Your task to perform on an android device: Open eBay Image 0: 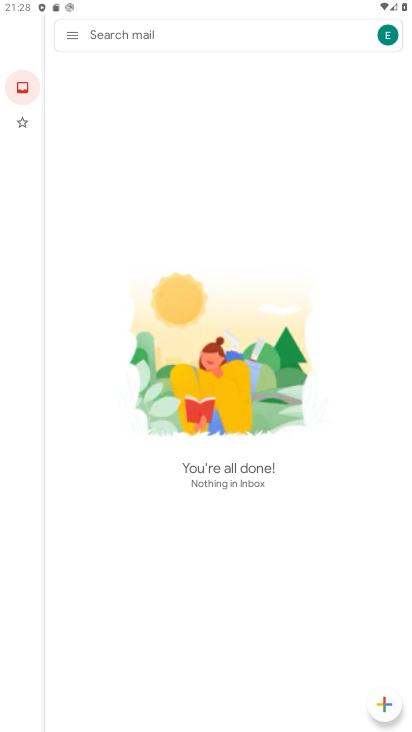
Step 0: press home button
Your task to perform on an android device: Open eBay Image 1: 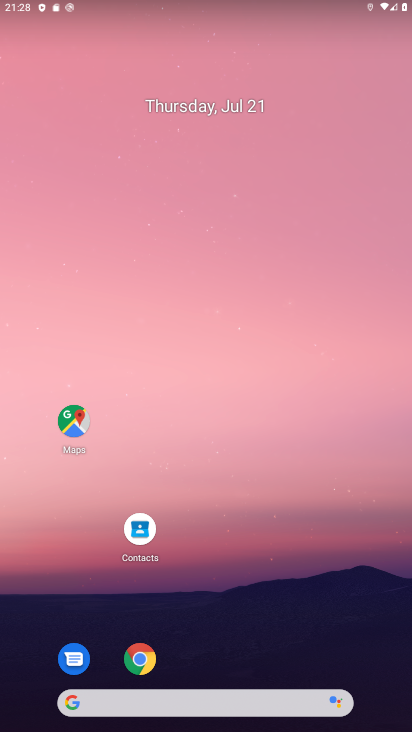
Step 1: drag from (155, 717) to (186, 114)
Your task to perform on an android device: Open eBay Image 2: 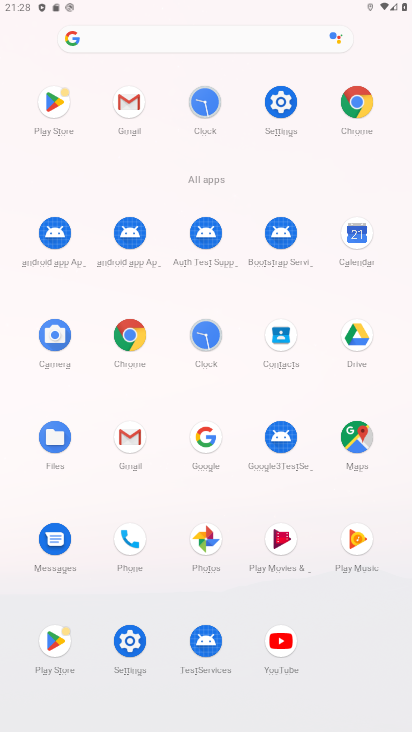
Step 2: click (138, 338)
Your task to perform on an android device: Open eBay Image 3: 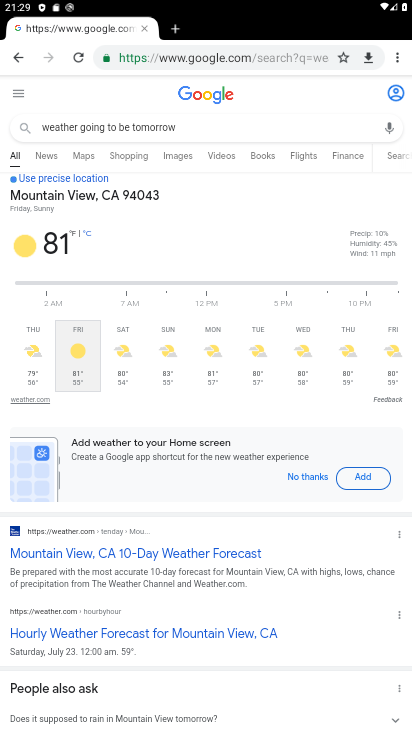
Step 3: drag from (394, 58) to (360, 68)
Your task to perform on an android device: Open eBay Image 4: 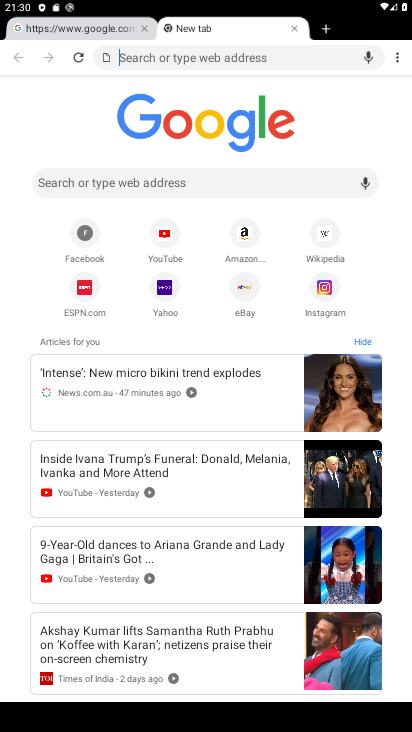
Step 4: click (246, 294)
Your task to perform on an android device: Open eBay Image 5: 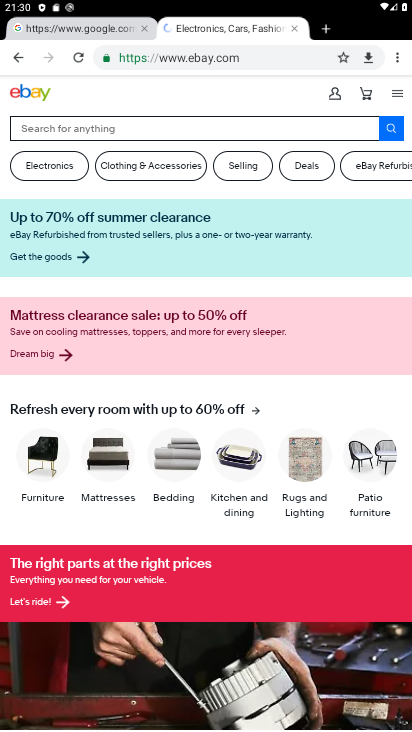
Step 5: task complete